Your task to perform on an android device: Add sony triple a to the cart on walmart, then select checkout. Image 0: 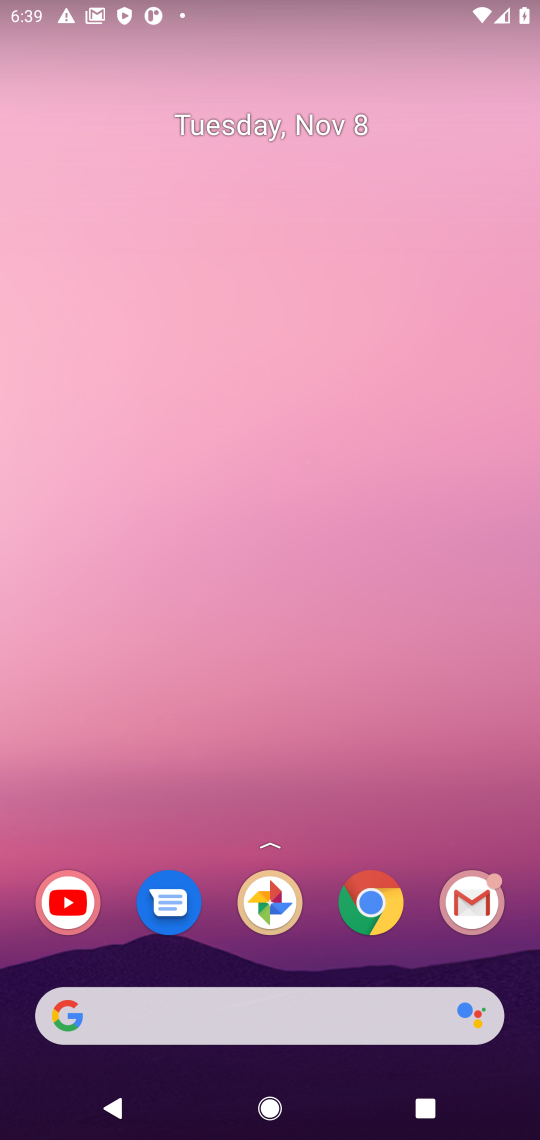
Step 0: click (358, 887)
Your task to perform on an android device: Add sony triple a to the cart on walmart, then select checkout. Image 1: 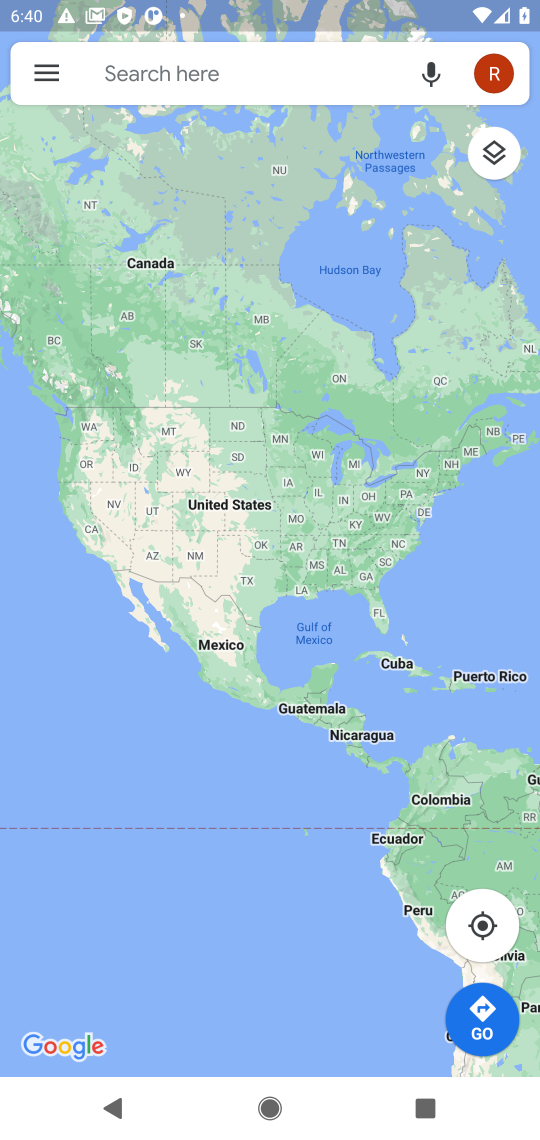
Step 1: press home button
Your task to perform on an android device: Add sony triple a to the cart on walmart, then select checkout. Image 2: 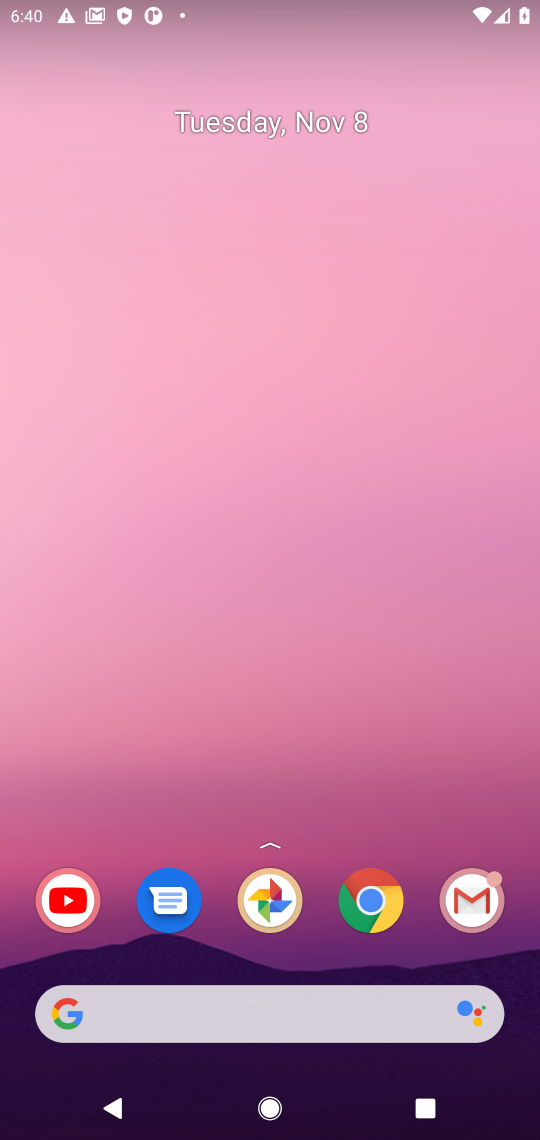
Step 2: click (361, 882)
Your task to perform on an android device: Add sony triple a to the cart on walmart, then select checkout. Image 3: 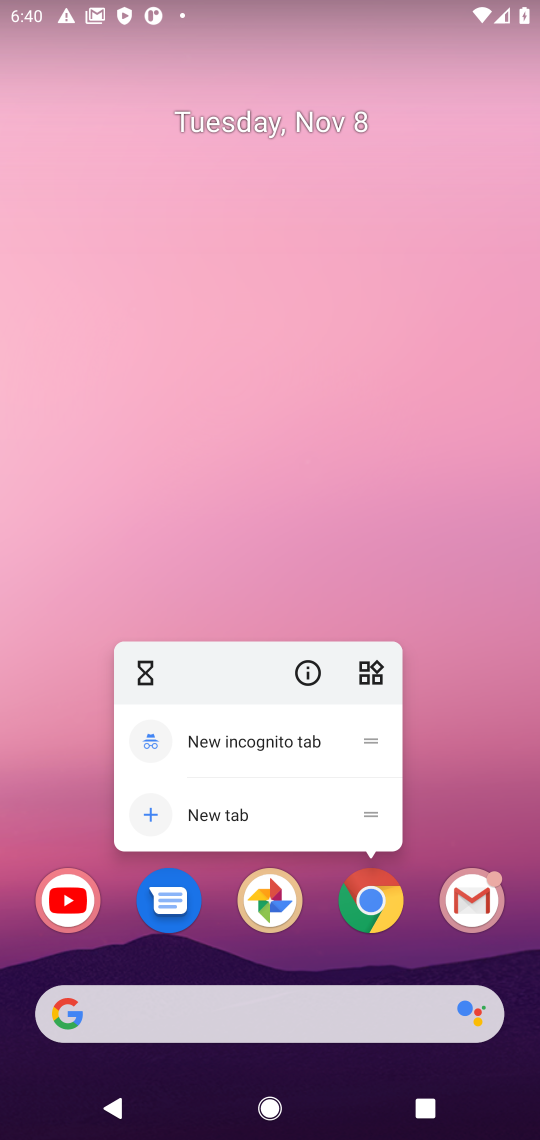
Step 3: click (375, 909)
Your task to perform on an android device: Add sony triple a to the cart on walmart, then select checkout. Image 4: 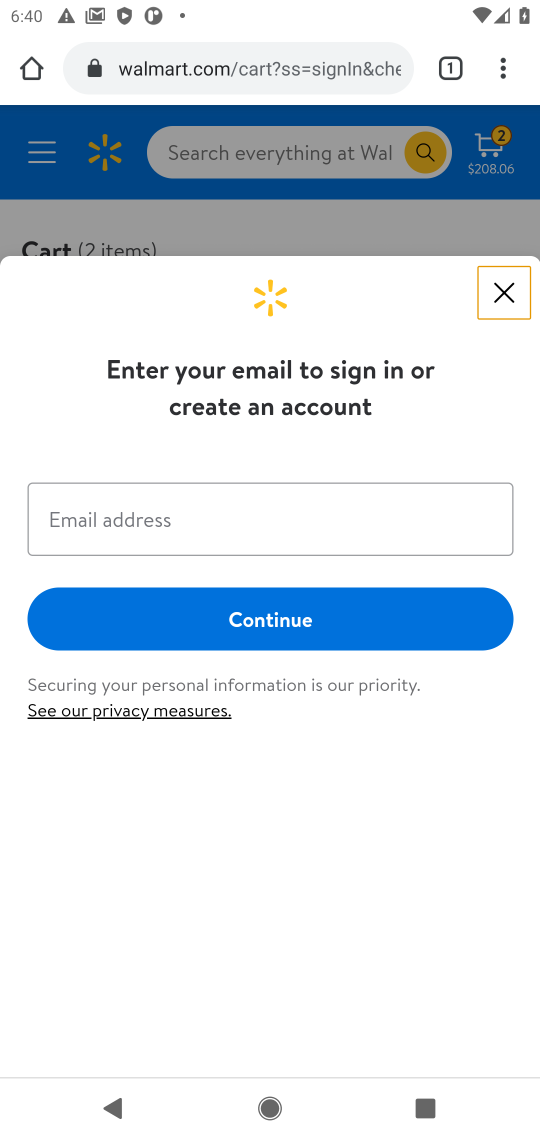
Step 4: click (197, 64)
Your task to perform on an android device: Add sony triple a to the cart on walmart, then select checkout. Image 5: 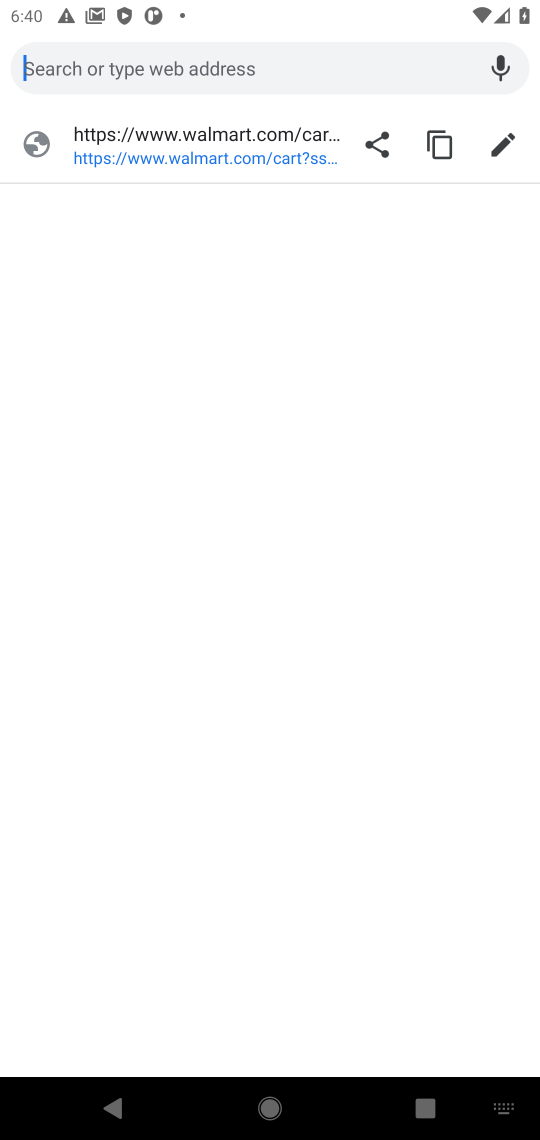
Step 5: type "walmart"
Your task to perform on an android device: Add sony triple a to the cart on walmart, then select checkout. Image 6: 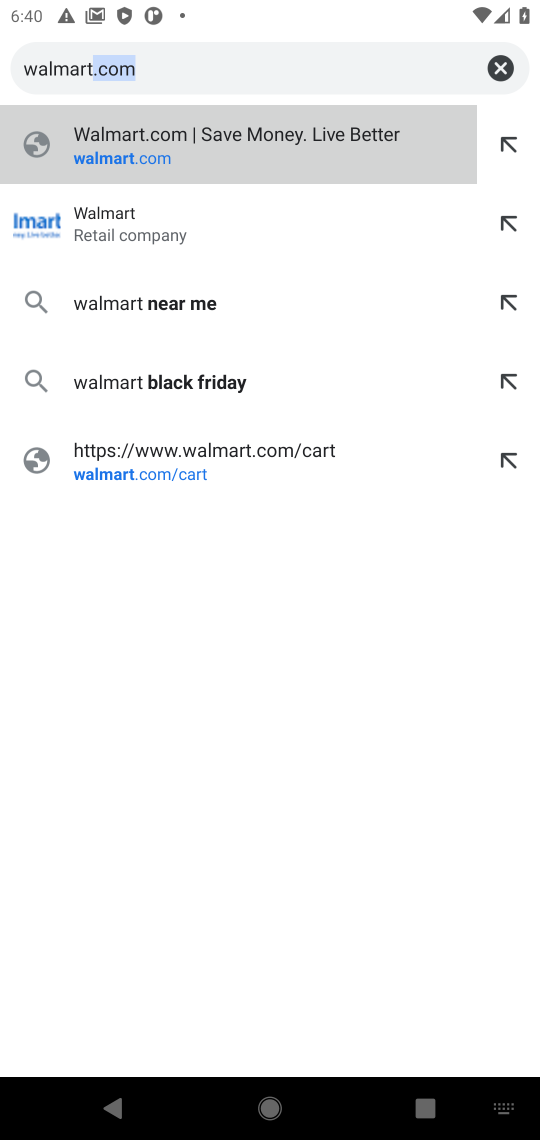
Step 6: click (90, 226)
Your task to perform on an android device: Add sony triple a to the cart on walmart, then select checkout. Image 7: 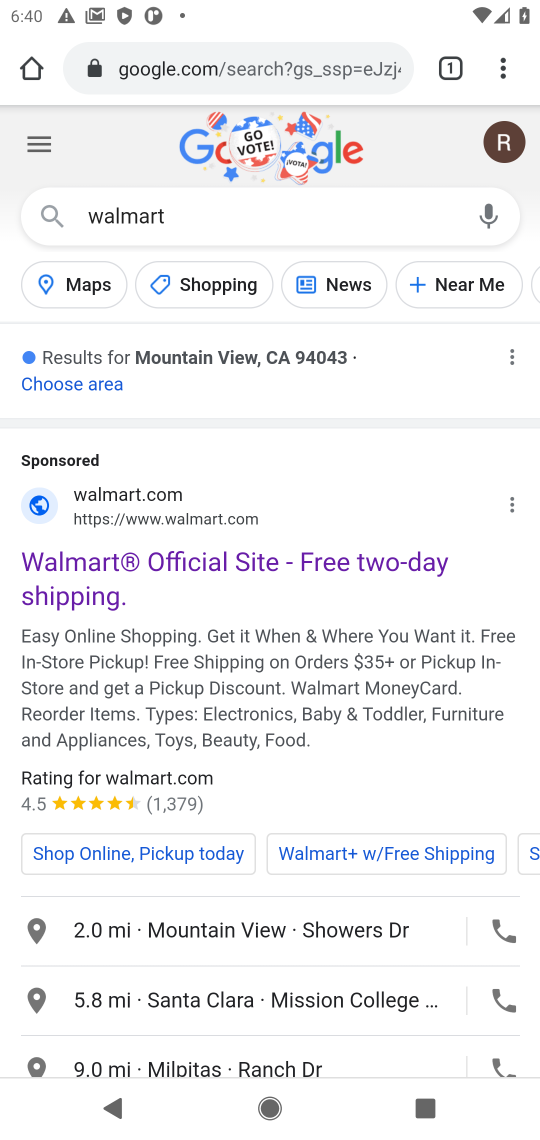
Step 7: drag from (87, 762) to (113, 148)
Your task to perform on an android device: Add sony triple a to the cart on walmart, then select checkout. Image 8: 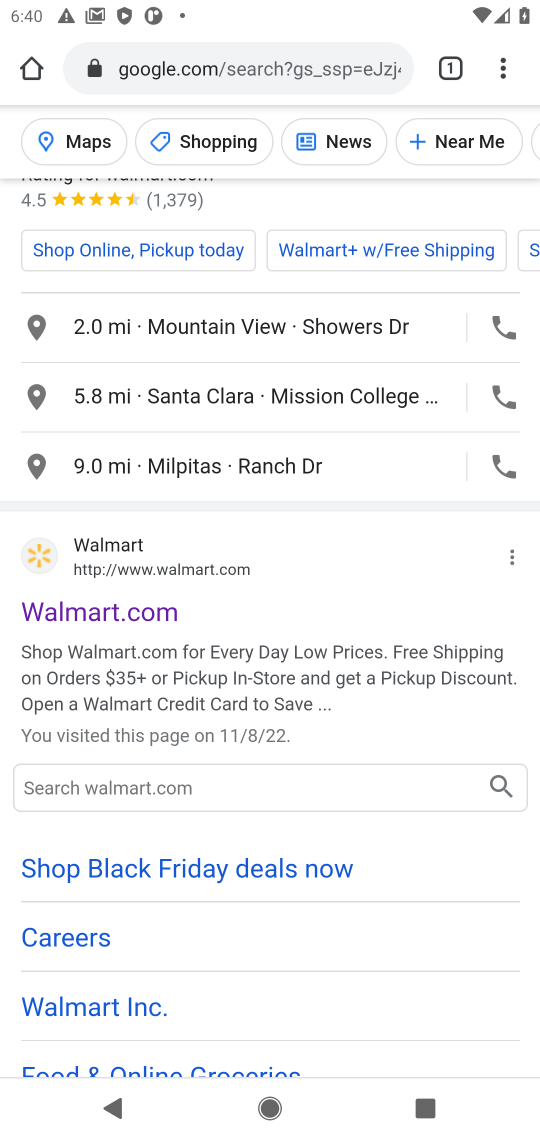
Step 8: click (99, 613)
Your task to perform on an android device: Add sony triple a to the cart on walmart, then select checkout. Image 9: 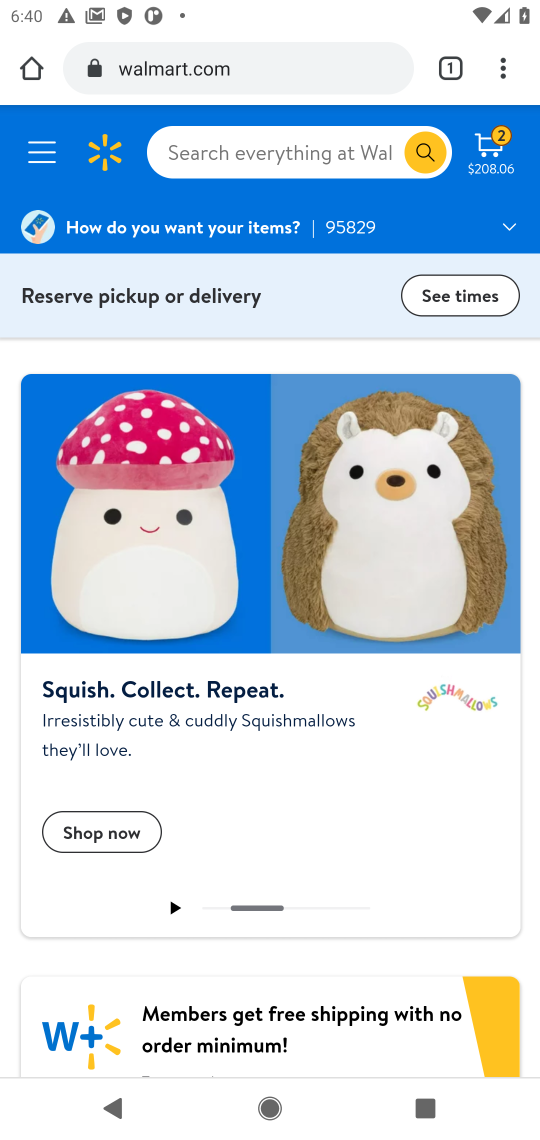
Step 9: click (250, 152)
Your task to perform on an android device: Add sony triple a to the cart on walmart, then select checkout. Image 10: 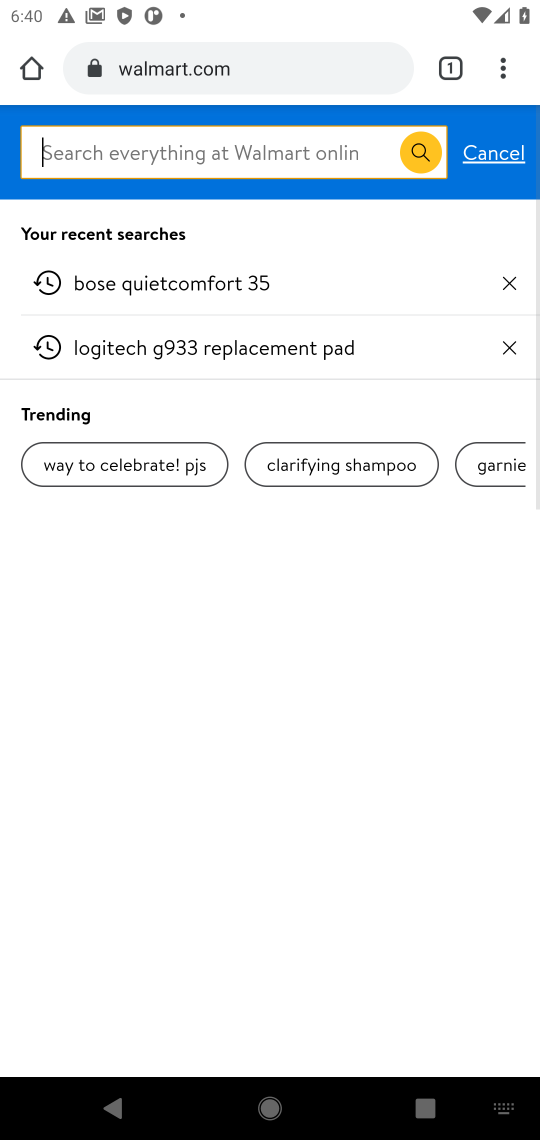
Step 10: type ""
Your task to perform on an android device: Add sony triple a to the cart on walmart, then select checkout. Image 11: 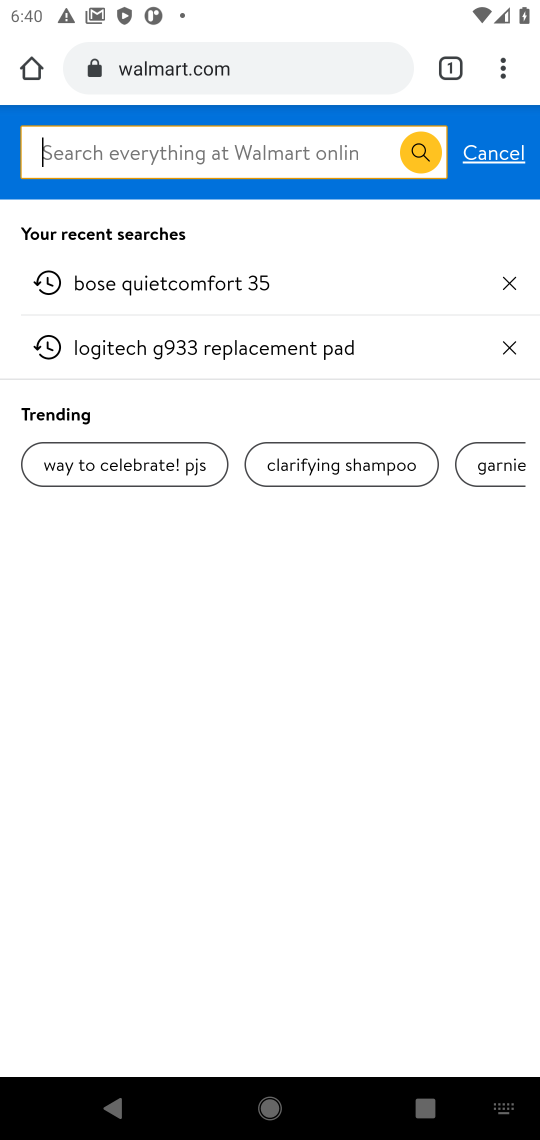
Step 11: type "sony triple"
Your task to perform on an android device: Add sony triple a to the cart on walmart, then select checkout. Image 12: 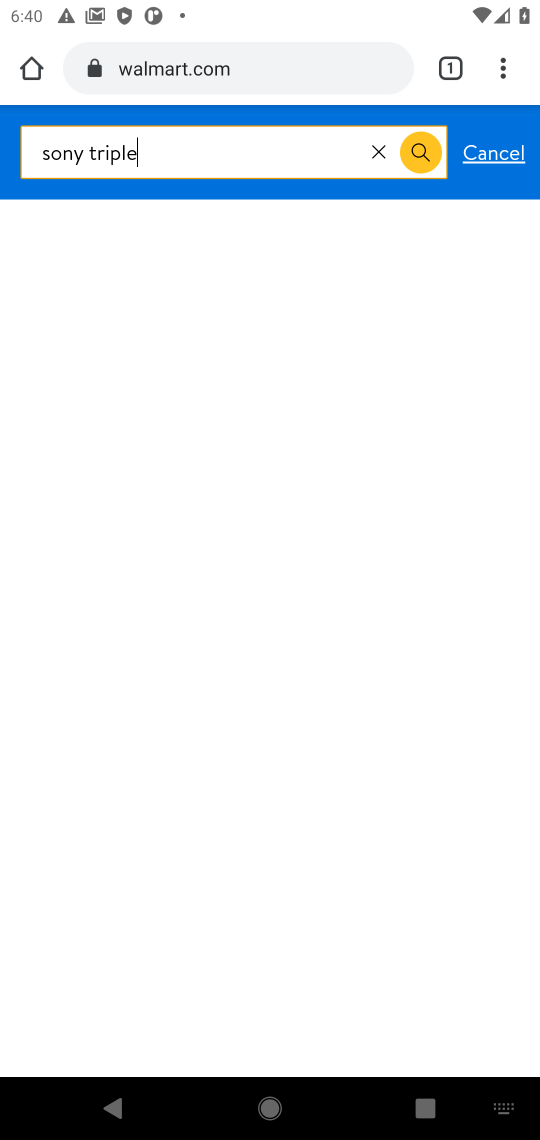
Step 12: type ""
Your task to perform on an android device: Add sony triple a to the cart on walmart, then select checkout. Image 13: 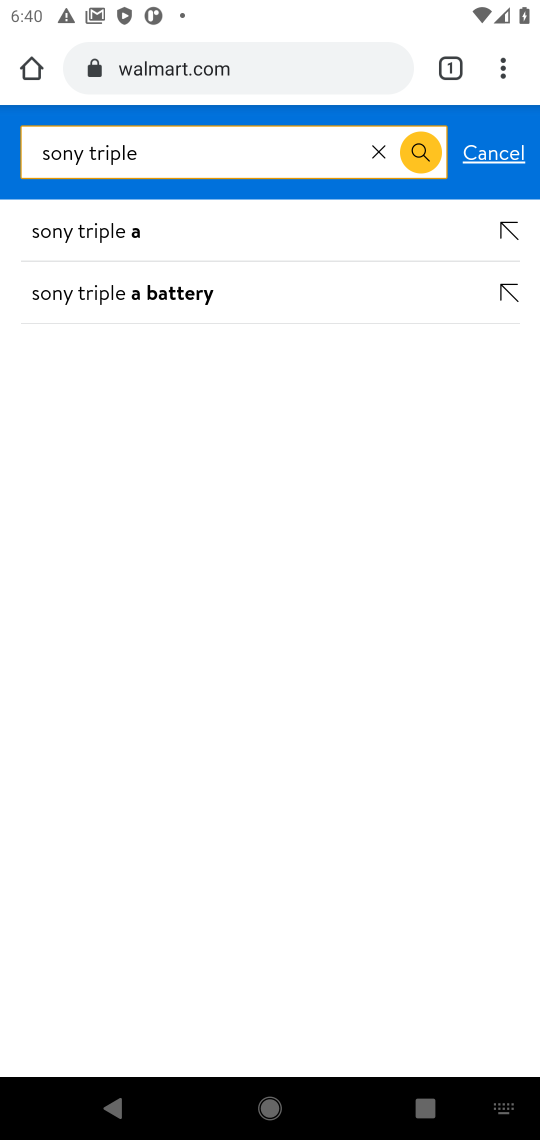
Step 13: click (95, 229)
Your task to perform on an android device: Add sony triple a to the cart on walmart, then select checkout. Image 14: 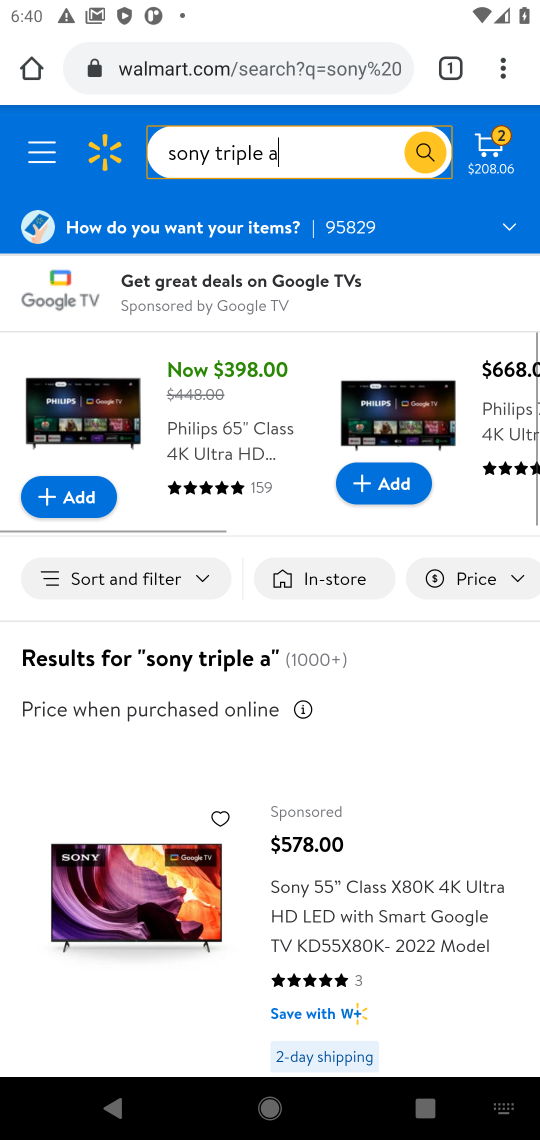
Step 14: drag from (234, 903) to (228, 412)
Your task to perform on an android device: Add sony triple a to the cart on walmart, then select checkout. Image 15: 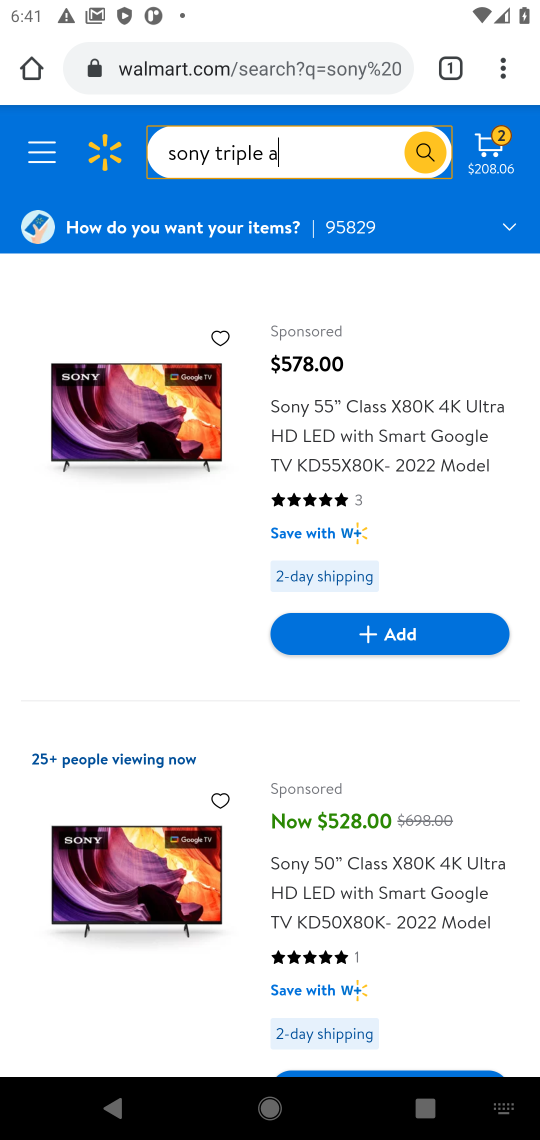
Step 15: click (321, 899)
Your task to perform on an android device: Add sony triple a to the cart on walmart, then select checkout. Image 16: 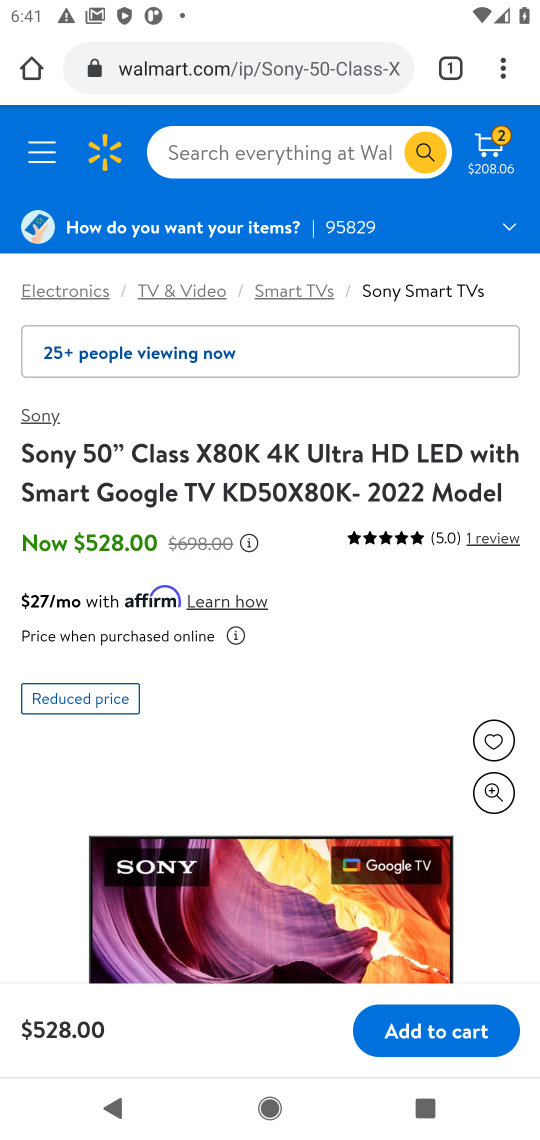
Step 16: drag from (144, 795) to (200, 370)
Your task to perform on an android device: Add sony triple a to the cart on walmart, then select checkout. Image 17: 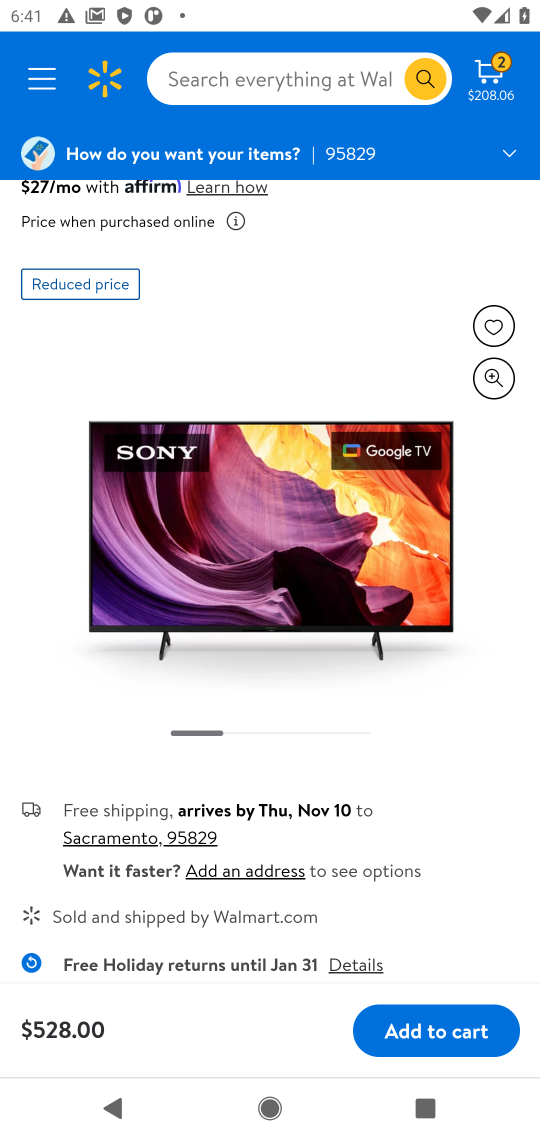
Step 17: click (436, 1043)
Your task to perform on an android device: Add sony triple a to the cart on walmart, then select checkout. Image 18: 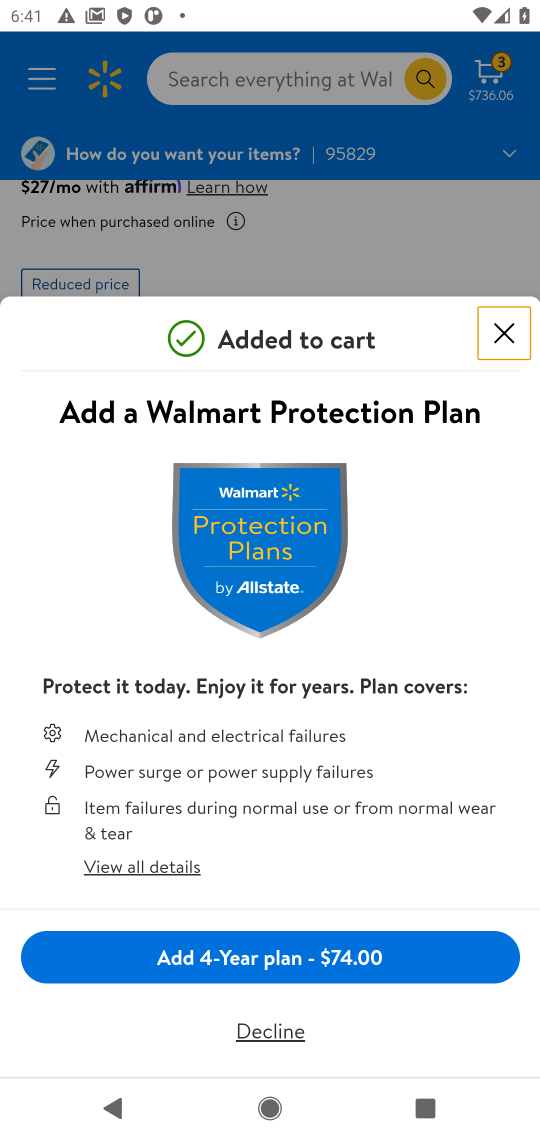
Step 18: click (512, 336)
Your task to perform on an android device: Add sony triple a to the cart on walmart, then select checkout. Image 19: 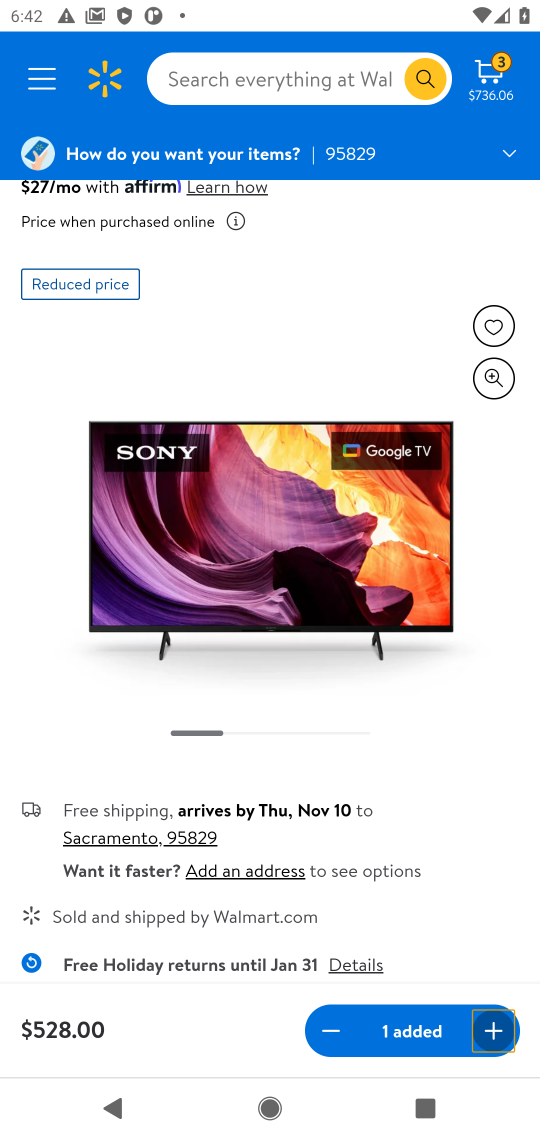
Step 19: click (490, 73)
Your task to perform on an android device: Add sony triple a to the cart on walmart, then select checkout. Image 20: 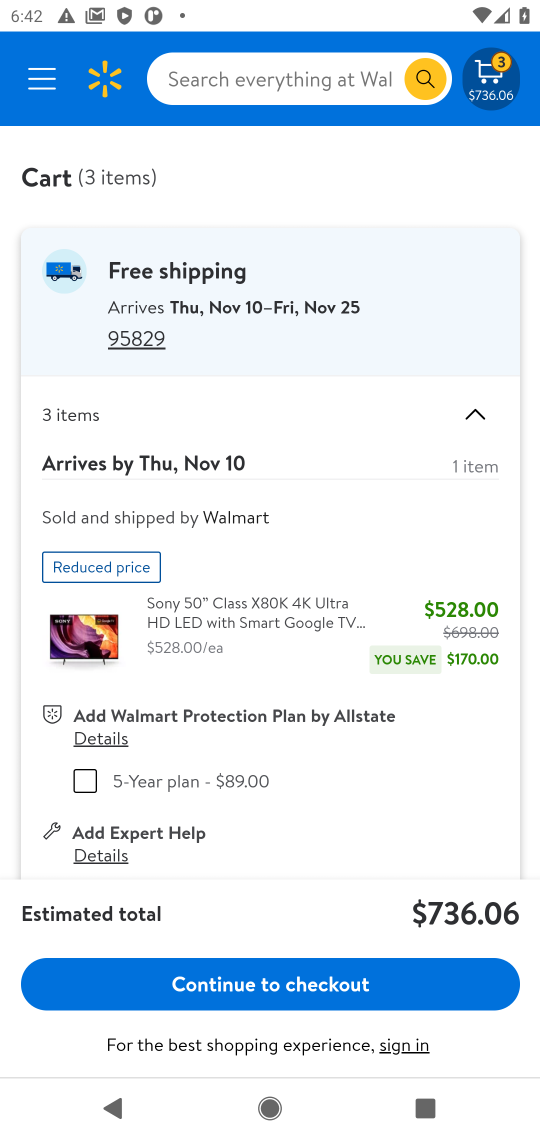
Step 20: click (306, 990)
Your task to perform on an android device: Add sony triple a to the cart on walmart, then select checkout. Image 21: 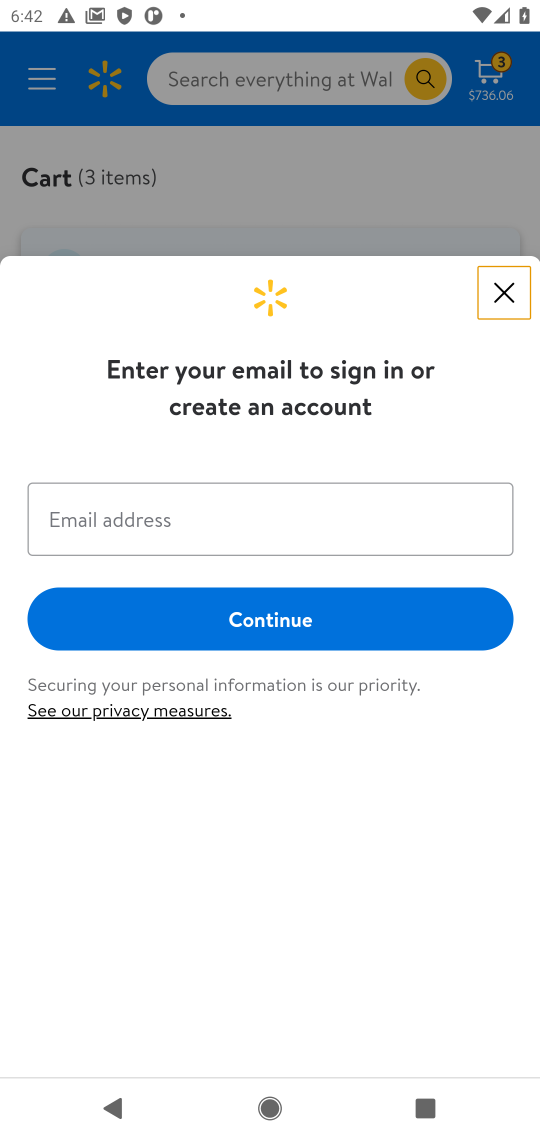
Step 21: task complete